Your task to perform on an android device: change notifications settings Image 0: 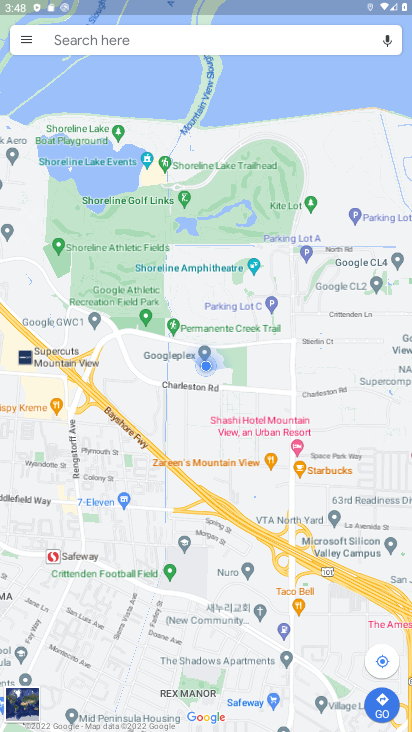
Step 0: press home button
Your task to perform on an android device: change notifications settings Image 1: 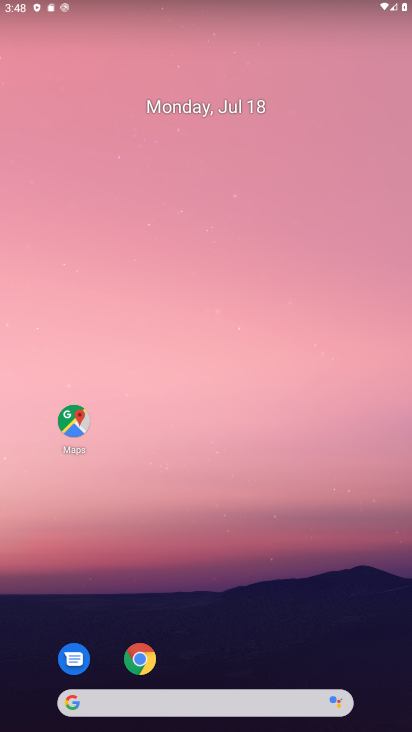
Step 1: drag from (274, 702) to (289, 110)
Your task to perform on an android device: change notifications settings Image 2: 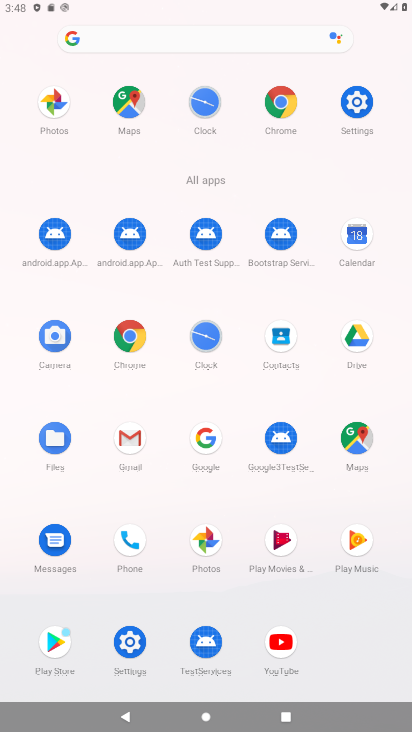
Step 2: click (348, 110)
Your task to perform on an android device: change notifications settings Image 3: 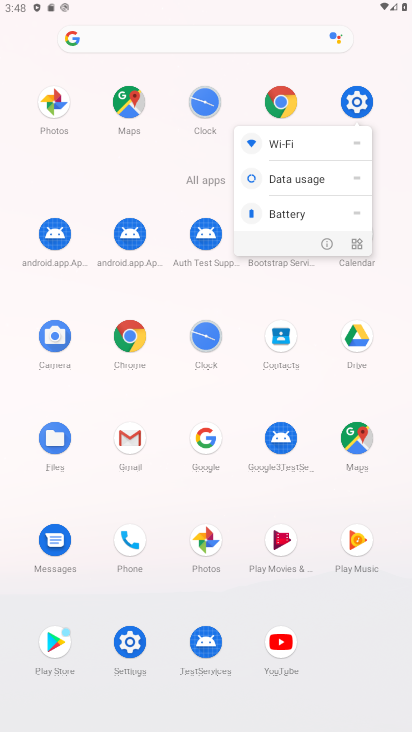
Step 3: click (366, 97)
Your task to perform on an android device: change notifications settings Image 4: 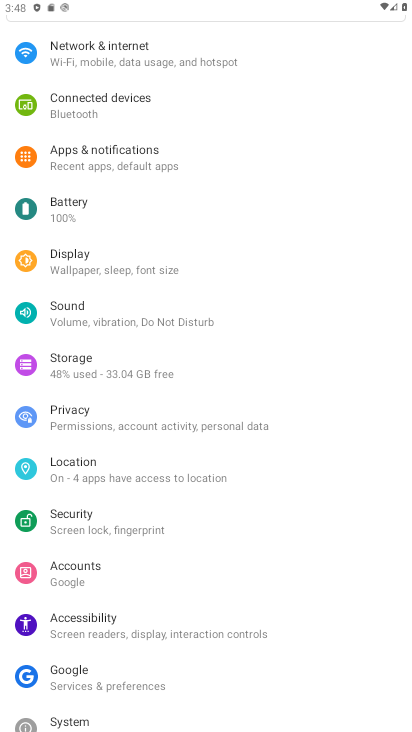
Step 4: click (189, 154)
Your task to perform on an android device: change notifications settings Image 5: 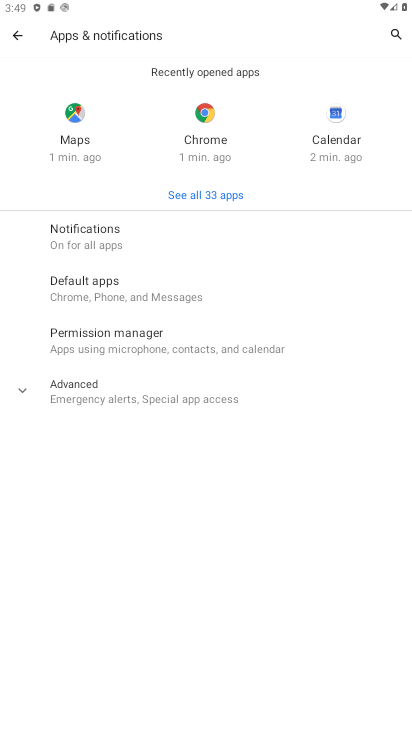
Step 5: click (86, 232)
Your task to perform on an android device: change notifications settings Image 6: 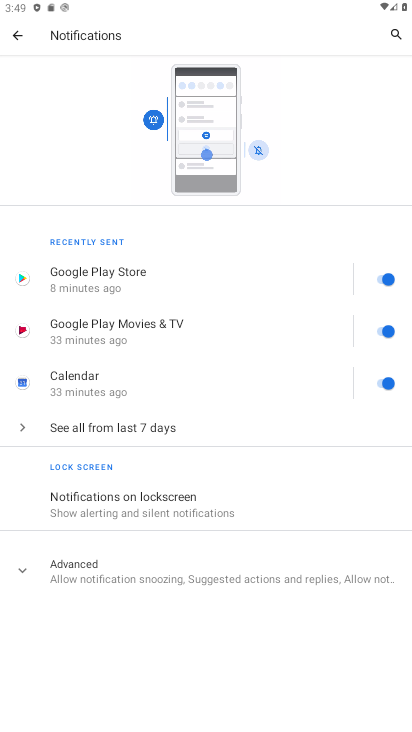
Step 6: click (383, 281)
Your task to perform on an android device: change notifications settings Image 7: 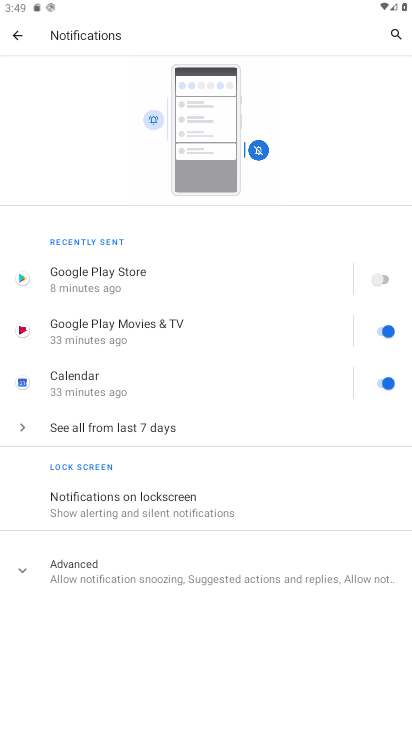
Step 7: task complete